Your task to perform on an android device: Open Chrome and go to settings Image 0: 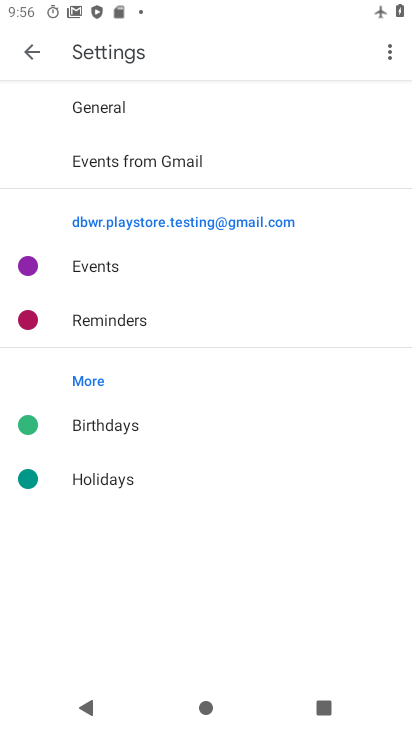
Step 0: press home button
Your task to perform on an android device: Open Chrome and go to settings Image 1: 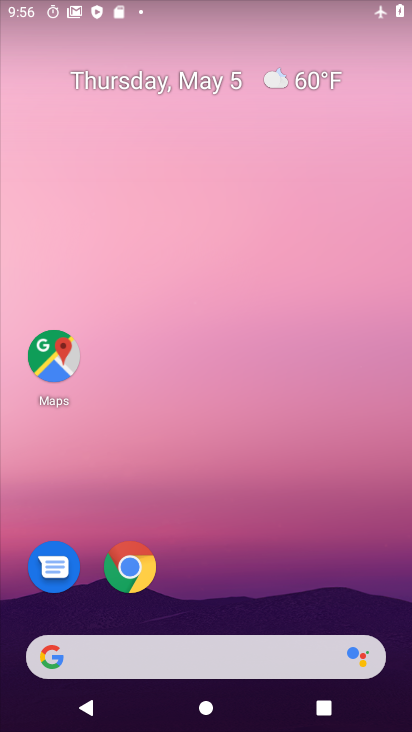
Step 1: drag from (244, 499) to (290, 18)
Your task to perform on an android device: Open Chrome and go to settings Image 2: 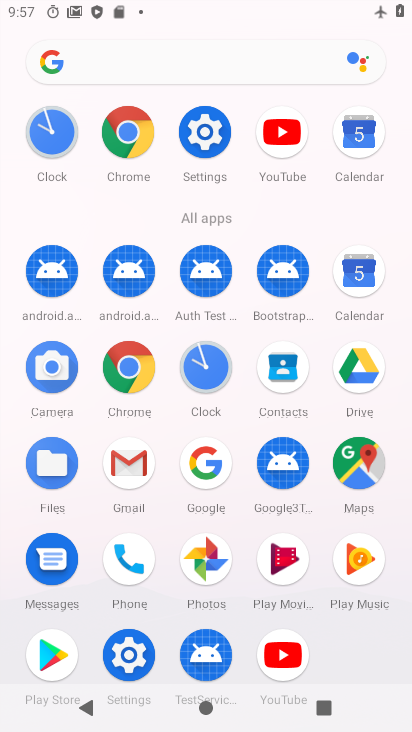
Step 2: click (113, 137)
Your task to perform on an android device: Open Chrome and go to settings Image 3: 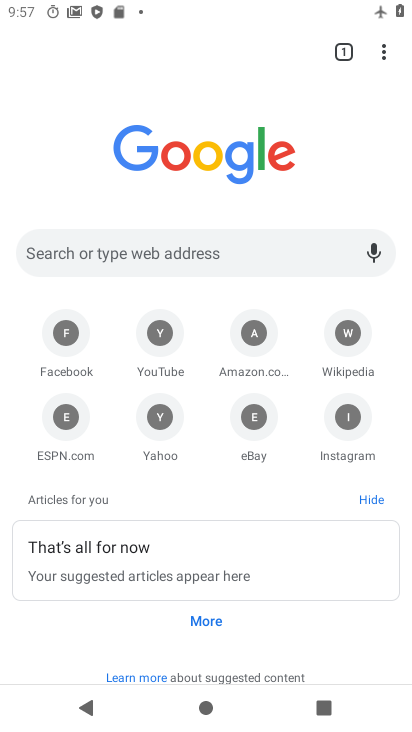
Step 3: task complete